Your task to perform on an android device: Open Yahoo.com Image 0: 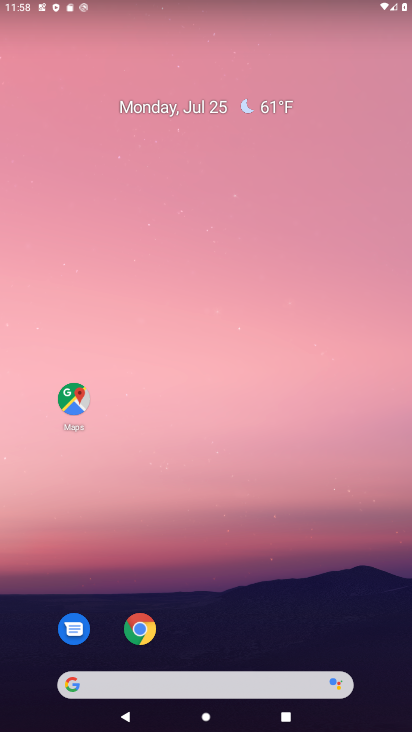
Step 0: click (147, 622)
Your task to perform on an android device: Open Yahoo.com Image 1: 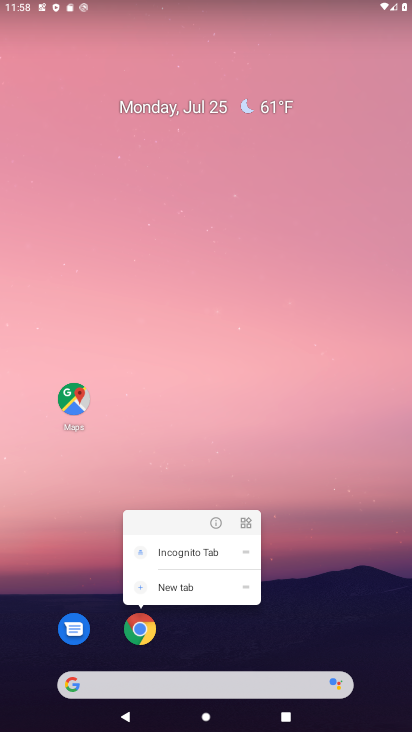
Step 1: click (143, 629)
Your task to perform on an android device: Open Yahoo.com Image 2: 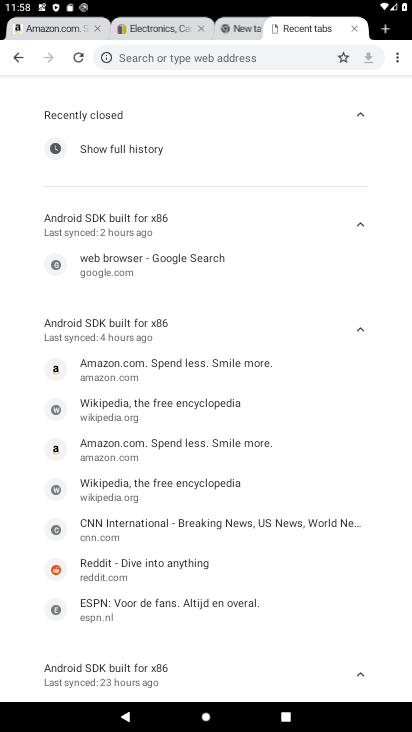
Step 2: click (383, 27)
Your task to perform on an android device: Open Yahoo.com Image 3: 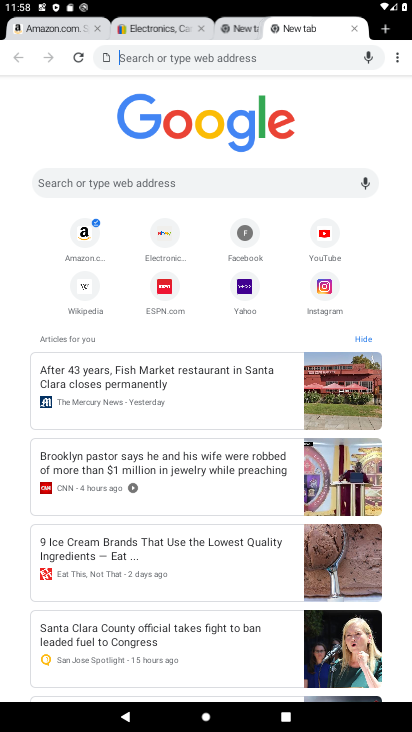
Step 3: click (241, 298)
Your task to perform on an android device: Open Yahoo.com Image 4: 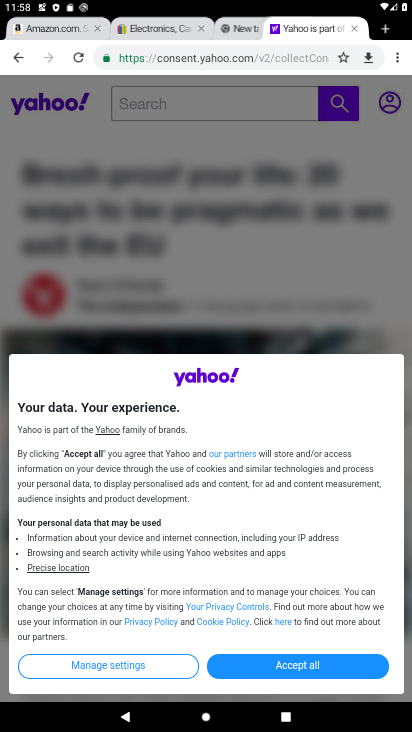
Step 4: task complete